Your task to perform on an android device: turn on javascript in the chrome app Image 0: 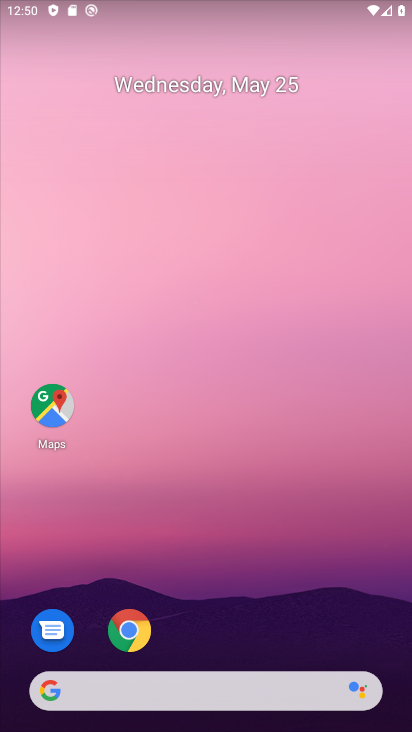
Step 0: press home button
Your task to perform on an android device: turn on javascript in the chrome app Image 1: 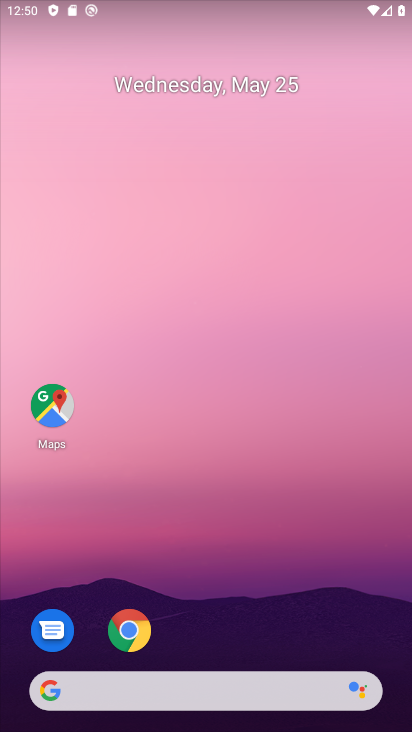
Step 1: click (125, 631)
Your task to perform on an android device: turn on javascript in the chrome app Image 2: 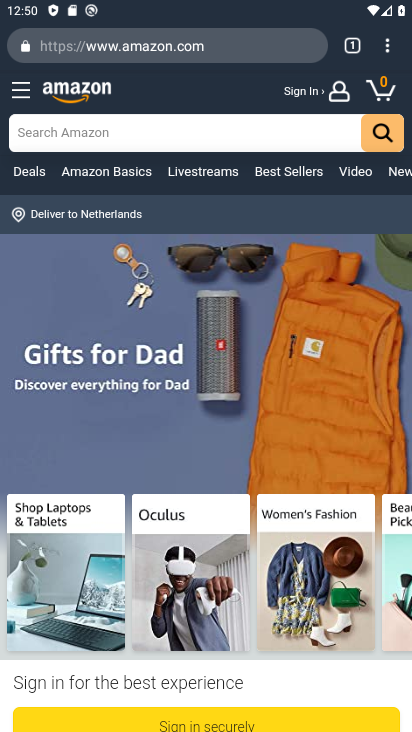
Step 2: click (385, 49)
Your task to perform on an android device: turn on javascript in the chrome app Image 3: 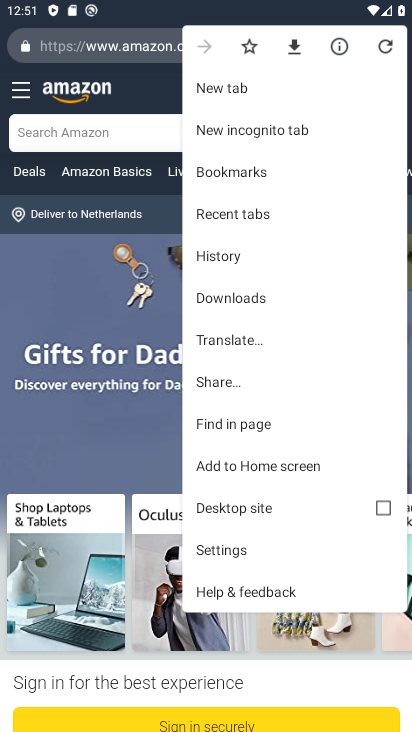
Step 3: click (255, 545)
Your task to perform on an android device: turn on javascript in the chrome app Image 4: 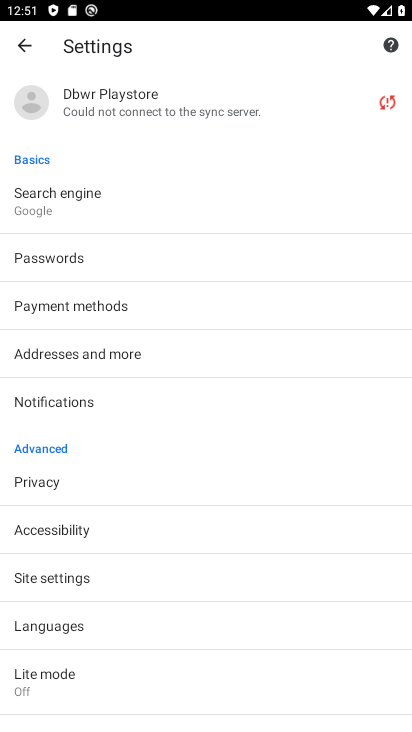
Step 4: drag from (118, 658) to (144, 156)
Your task to perform on an android device: turn on javascript in the chrome app Image 5: 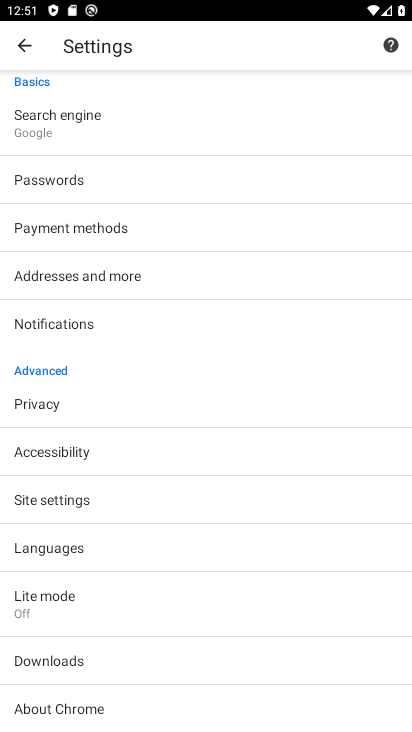
Step 5: click (99, 492)
Your task to perform on an android device: turn on javascript in the chrome app Image 6: 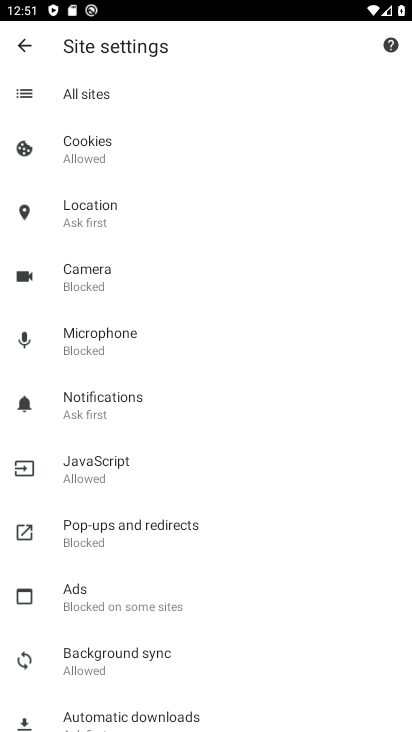
Step 6: click (108, 467)
Your task to perform on an android device: turn on javascript in the chrome app Image 7: 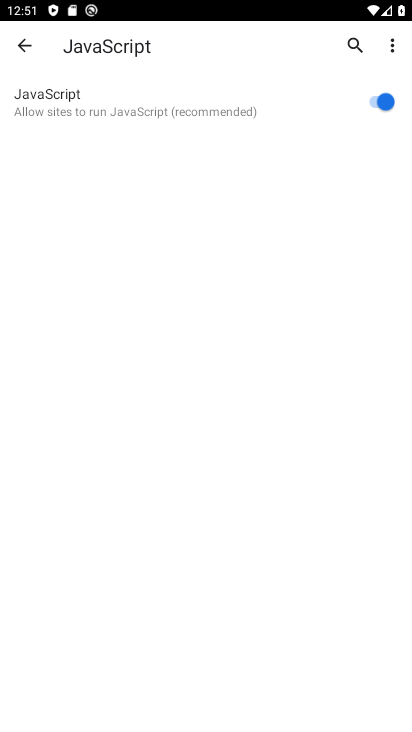
Step 7: task complete